Your task to perform on an android device: turn pop-ups off in chrome Image 0: 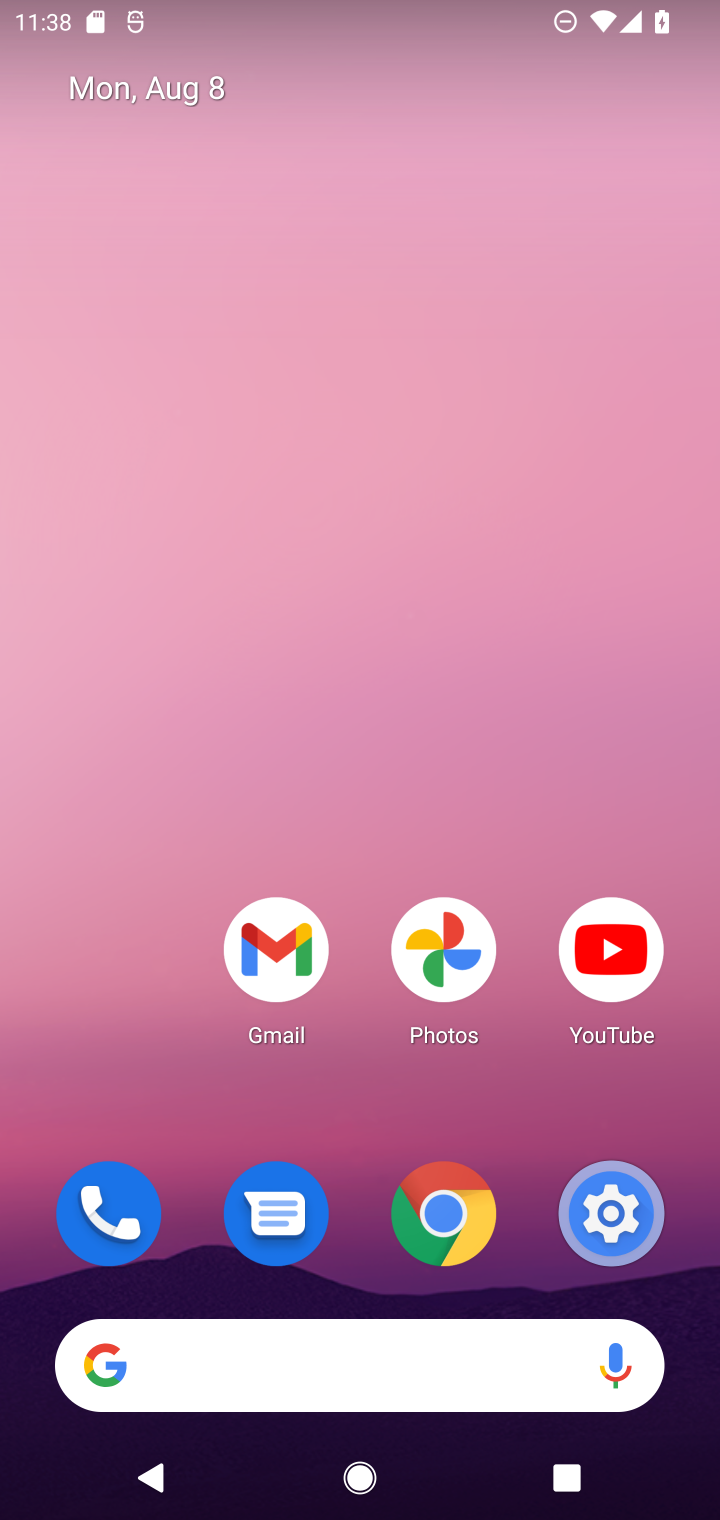
Step 0: click (441, 1191)
Your task to perform on an android device: turn pop-ups off in chrome Image 1: 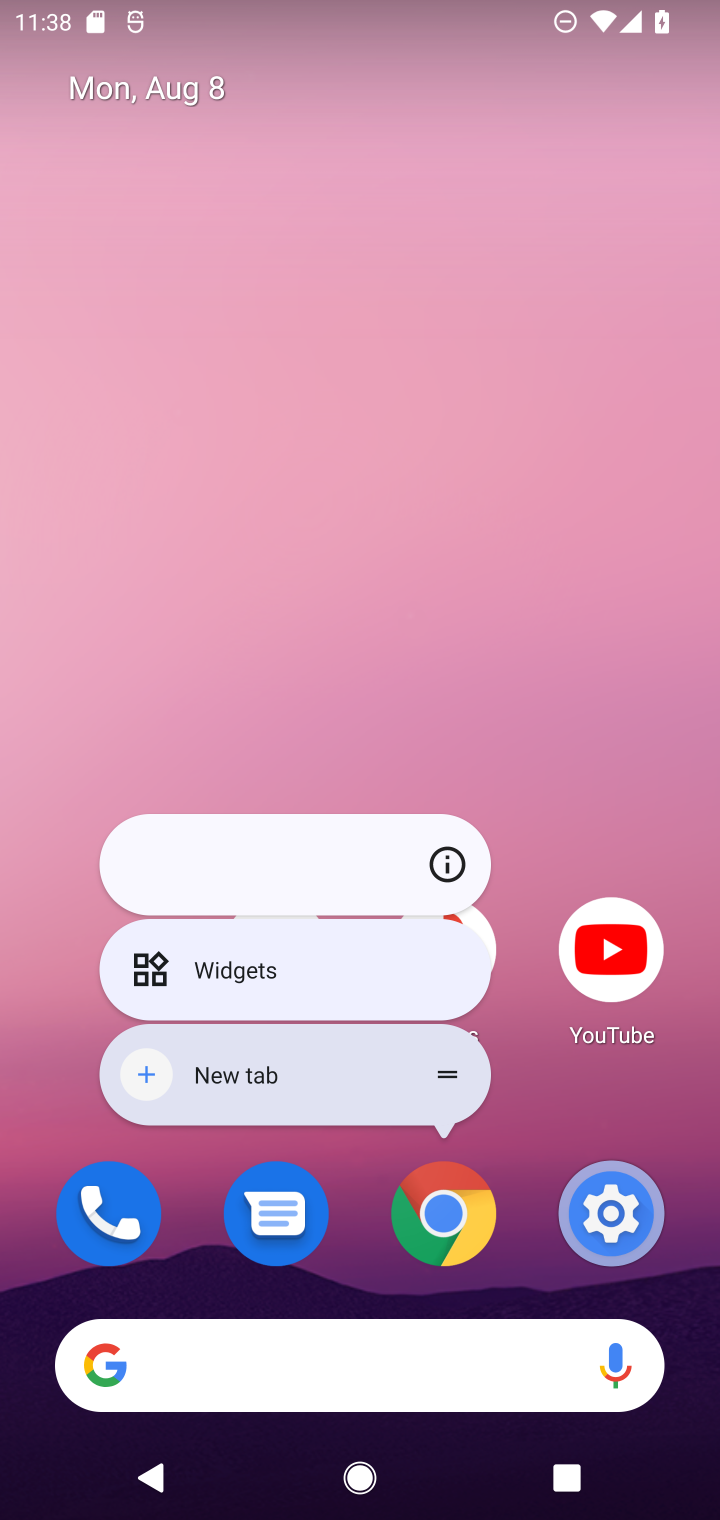
Step 1: click (522, 524)
Your task to perform on an android device: turn pop-ups off in chrome Image 2: 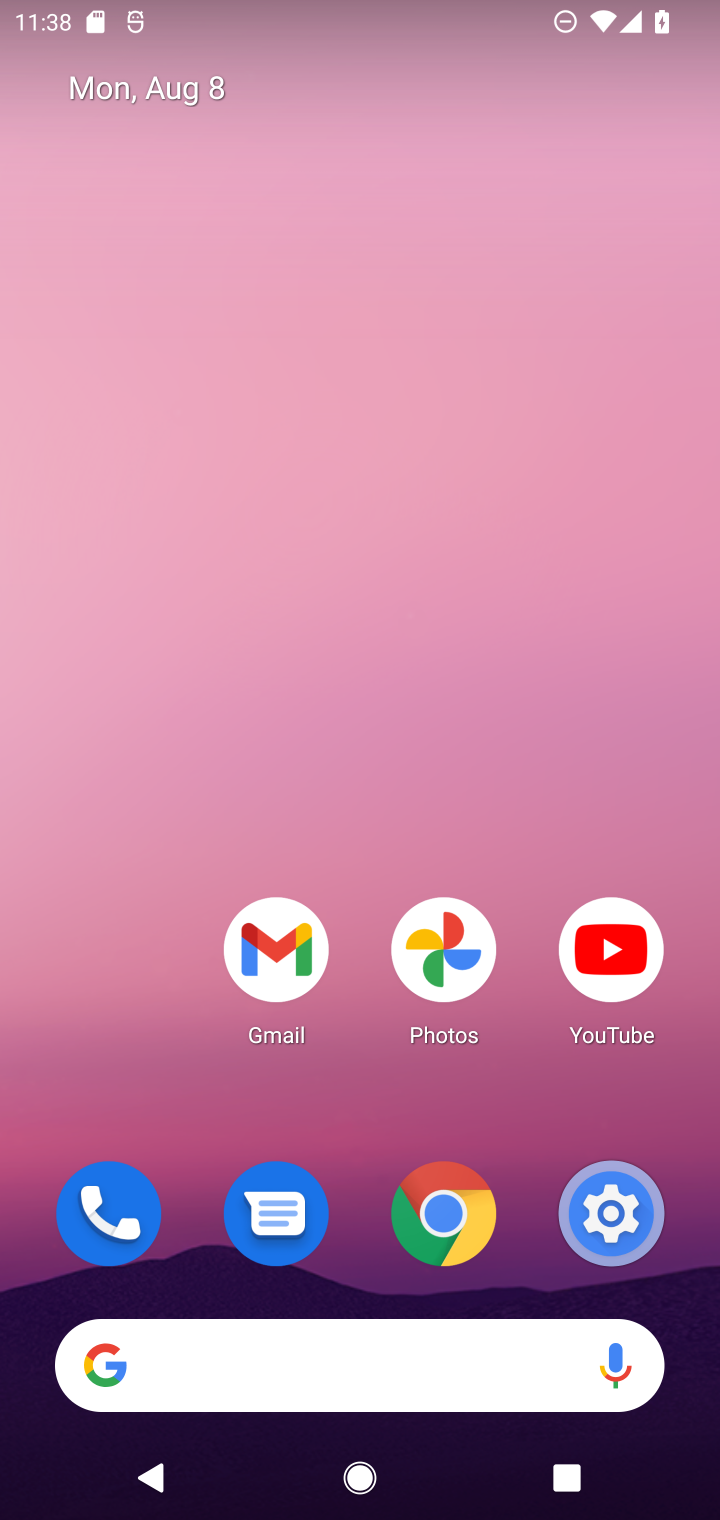
Step 2: click (438, 1207)
Your task to perform on an android device: turn pop-ups off in chrome Image 3: 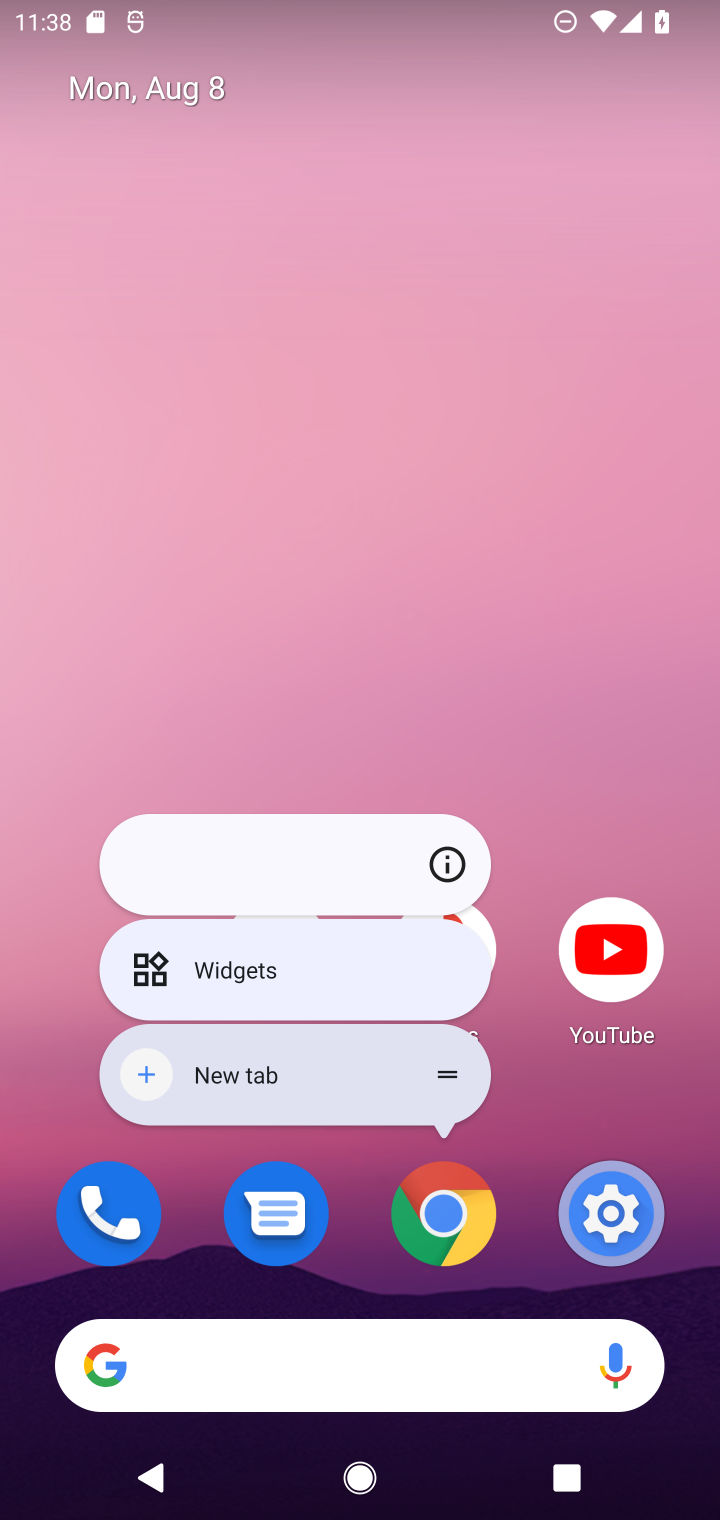
Step 3: click (539, 663)
Your task to perform on an android device: turn pop-ups off in chrome Image 4: 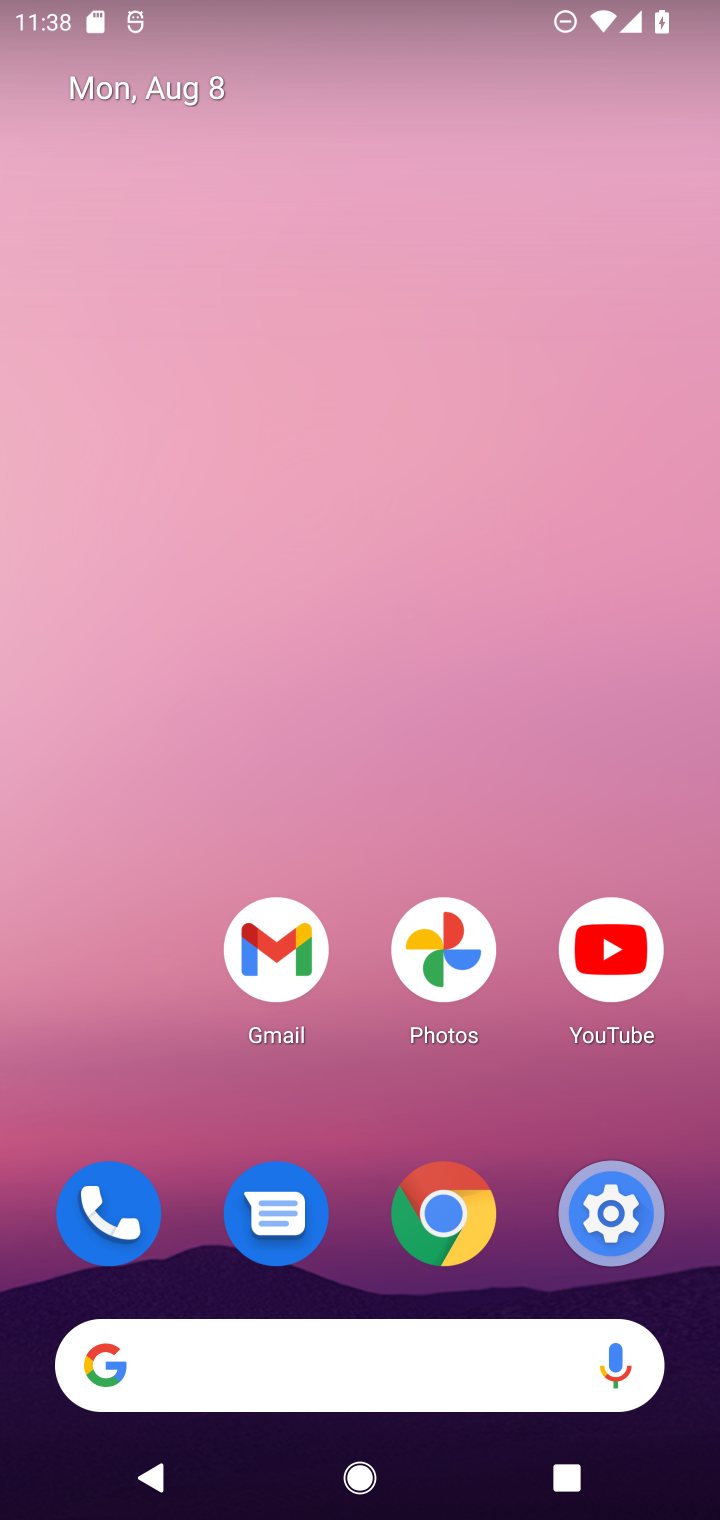
Step 4: drag from (548, 1101) to (530, 11)
Your task to perform on an android device: turn pop-ups off in chrome Image 5: 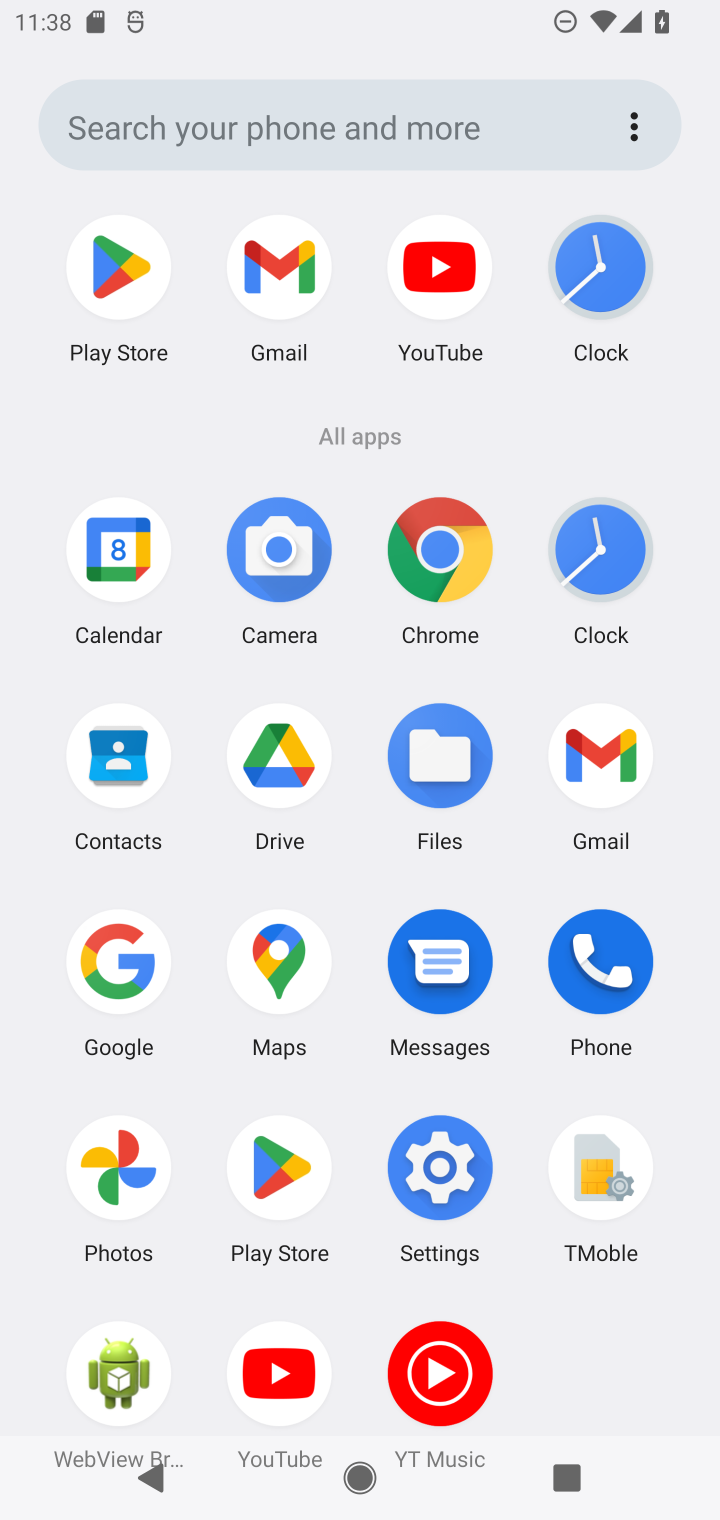
Step 5: click (435, 525)
Your task to perform on an android device: turn pop-ups off in chrome Image 6: 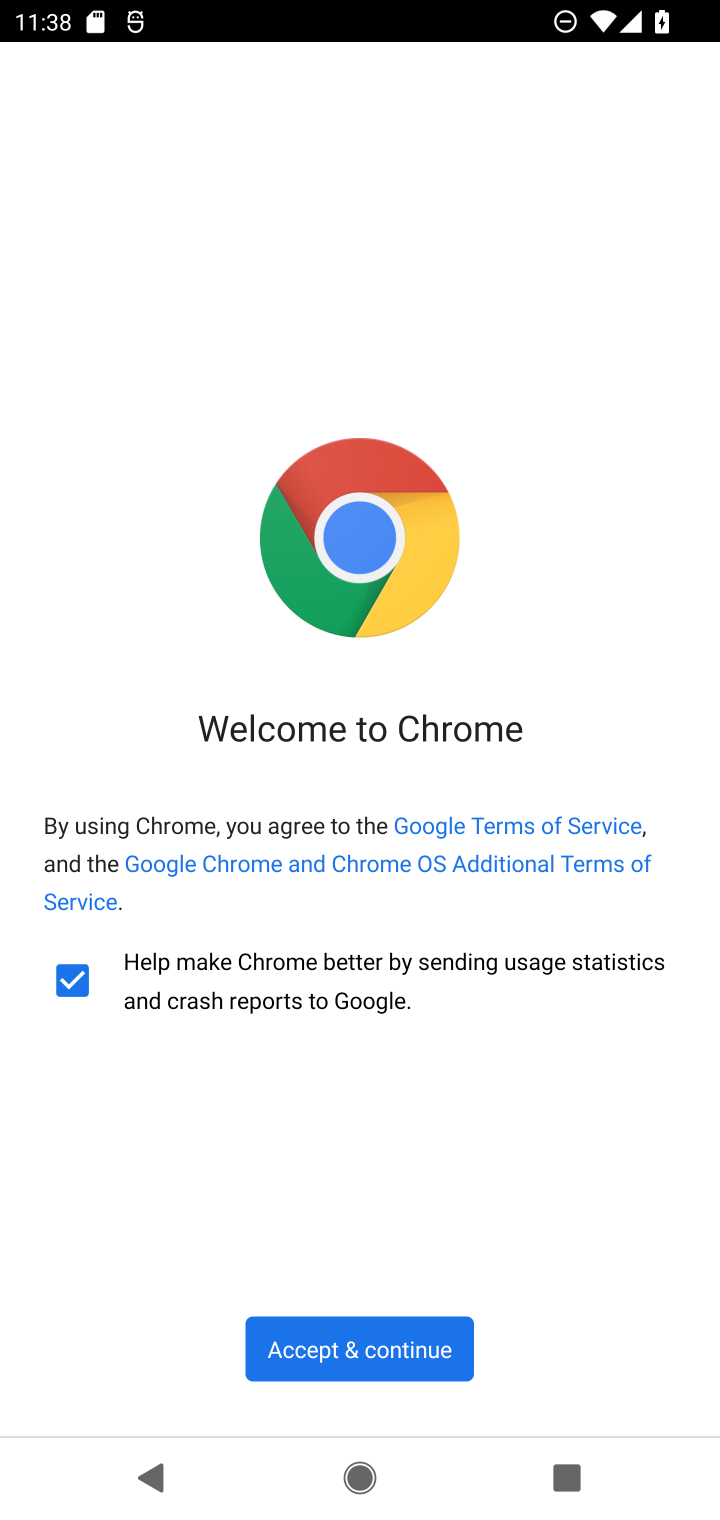
Step 6: click (352, 1346)
Your task to perform on an android device: turn pop-ups off in chrome Image 7: 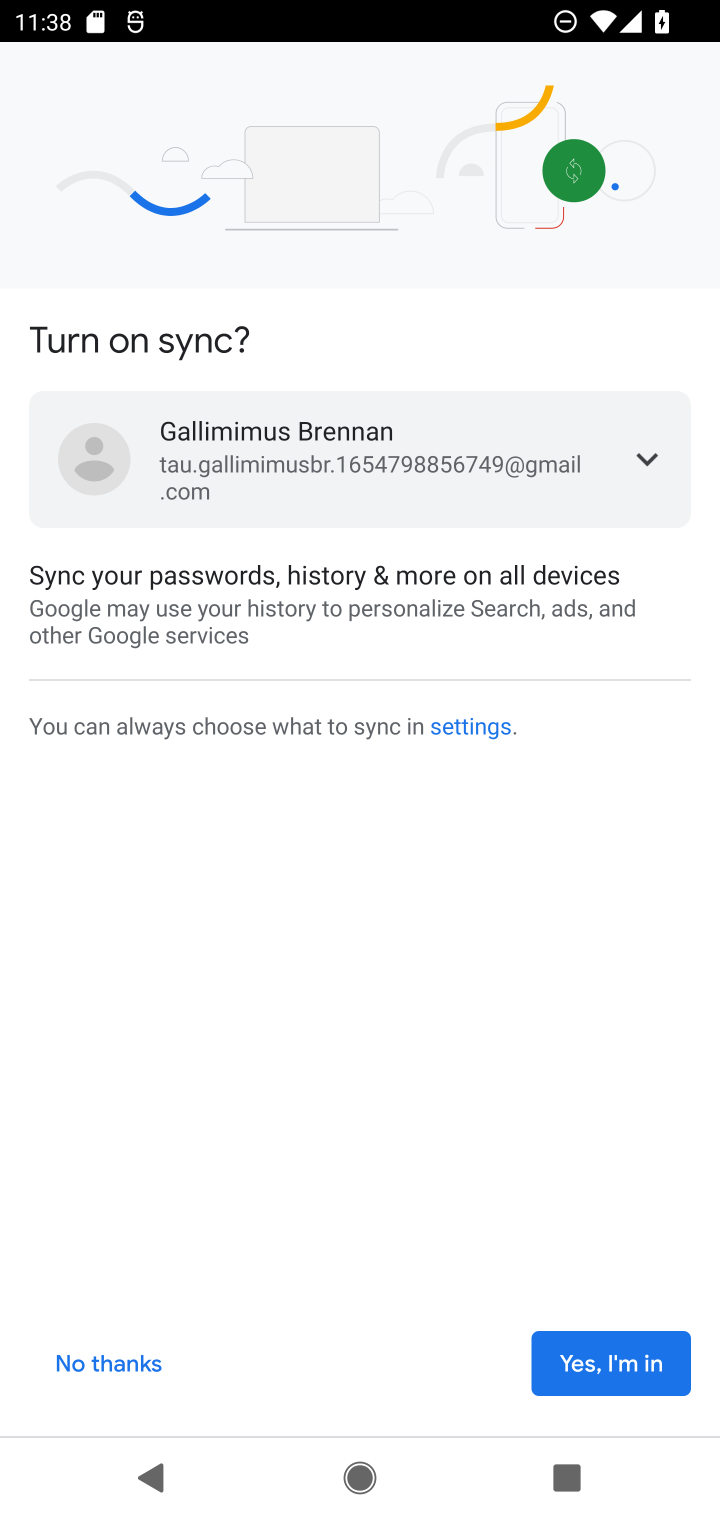
Step 7: click (613, 1363)
Your task to perform on an android device: turn pop-ups off in chrome Image 8: 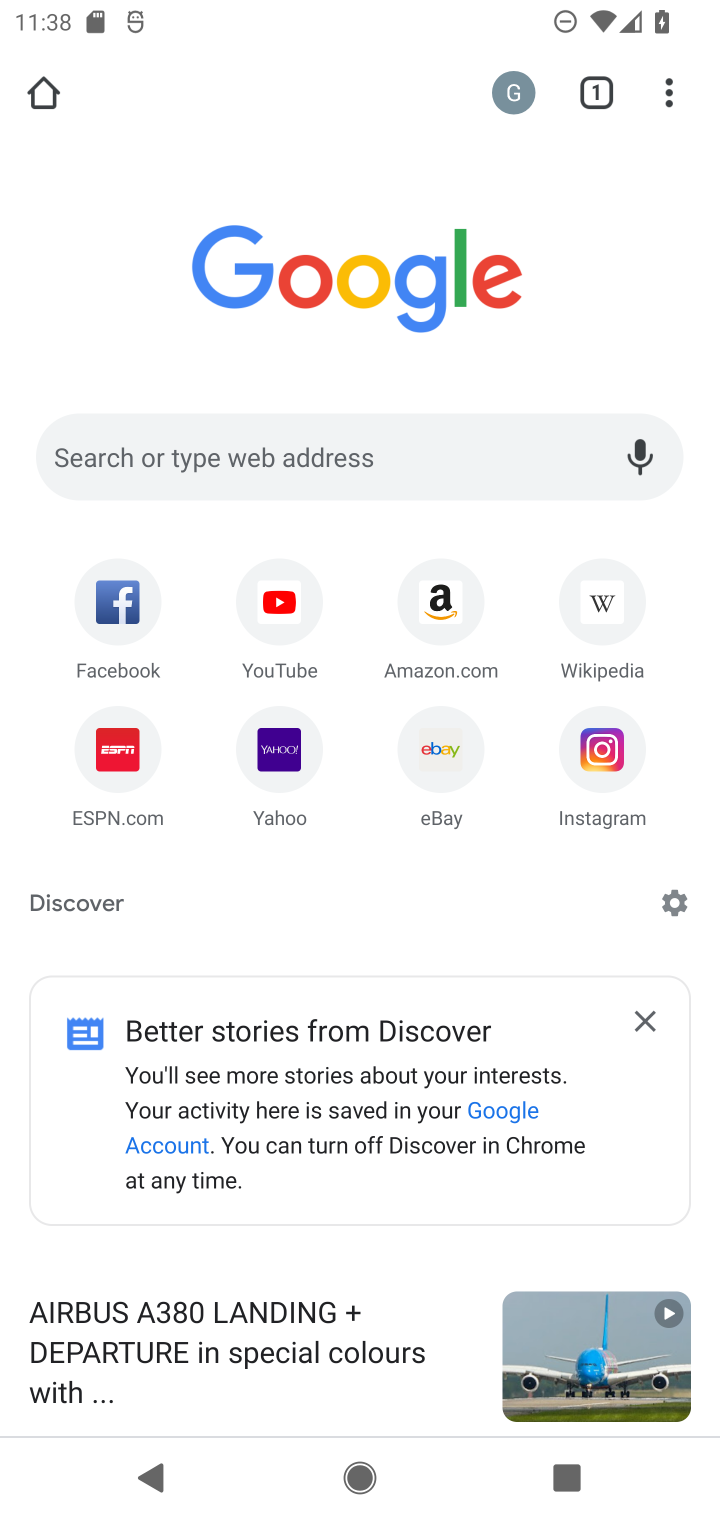
Step 8: click (671, 84)
Your task to perform on an android device: turn pop-ups off in chrome Image 9: 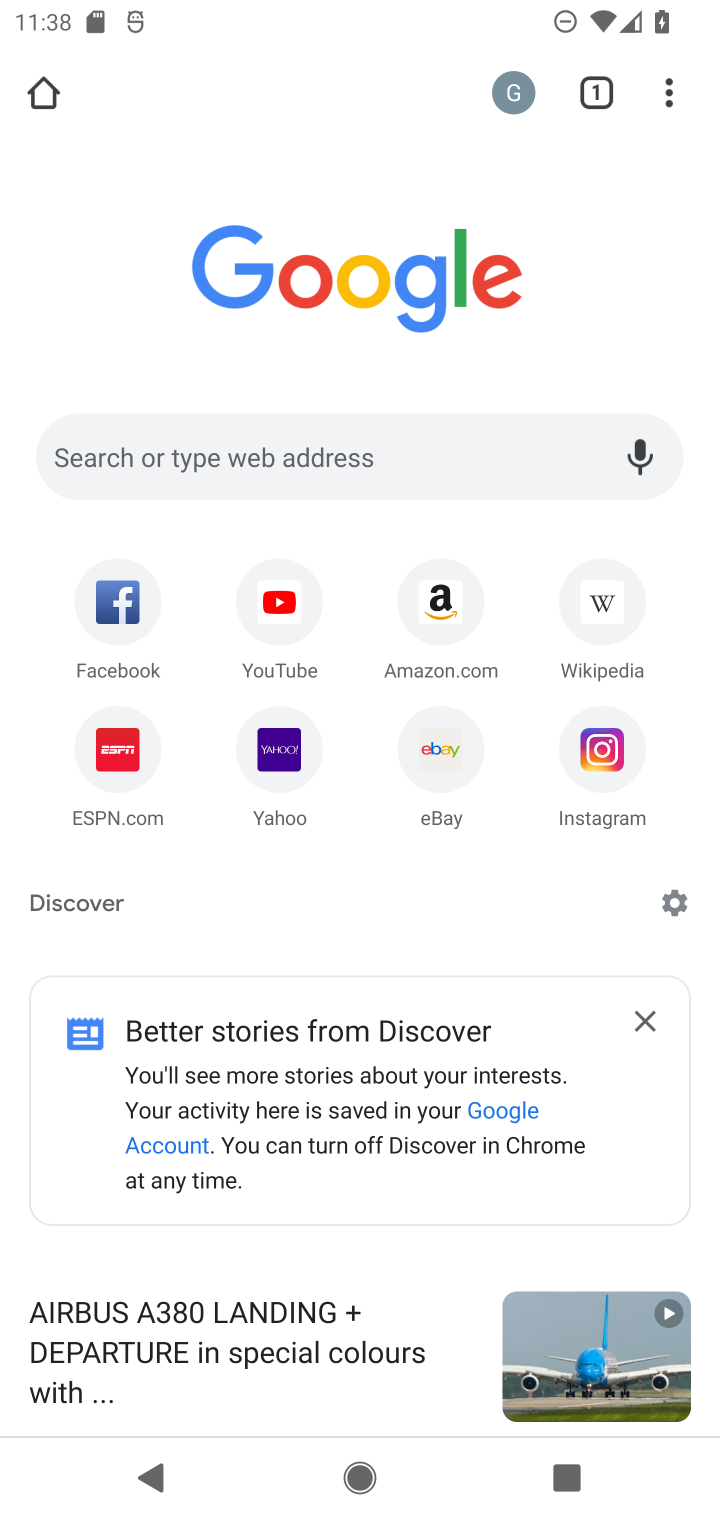
Step 9: click (665, 89)
Your task to perform on an android device: turn pop-ups off in chrome Image 10: 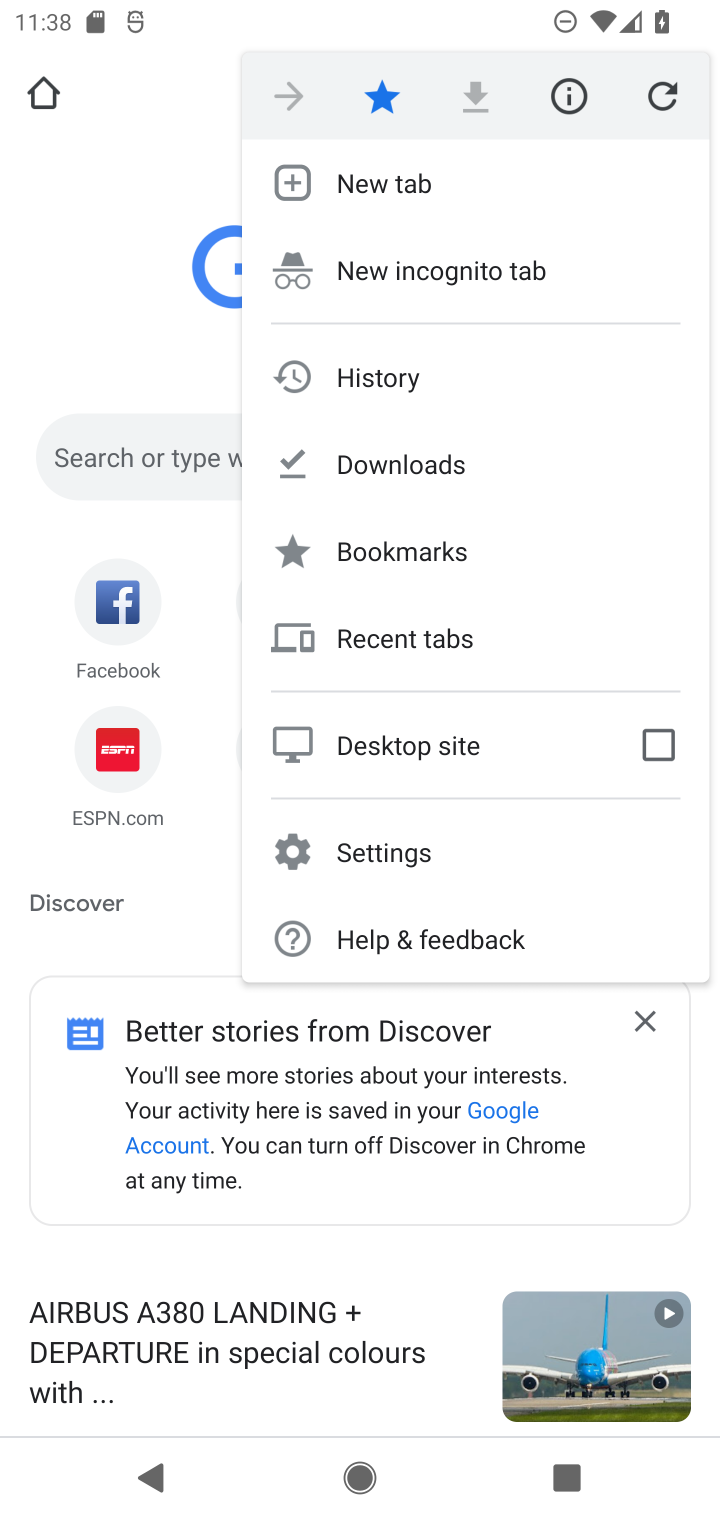
Step 10: click (426, 840)
Your task to perform on an android device: turn pop-ups off in chrome Image 11: 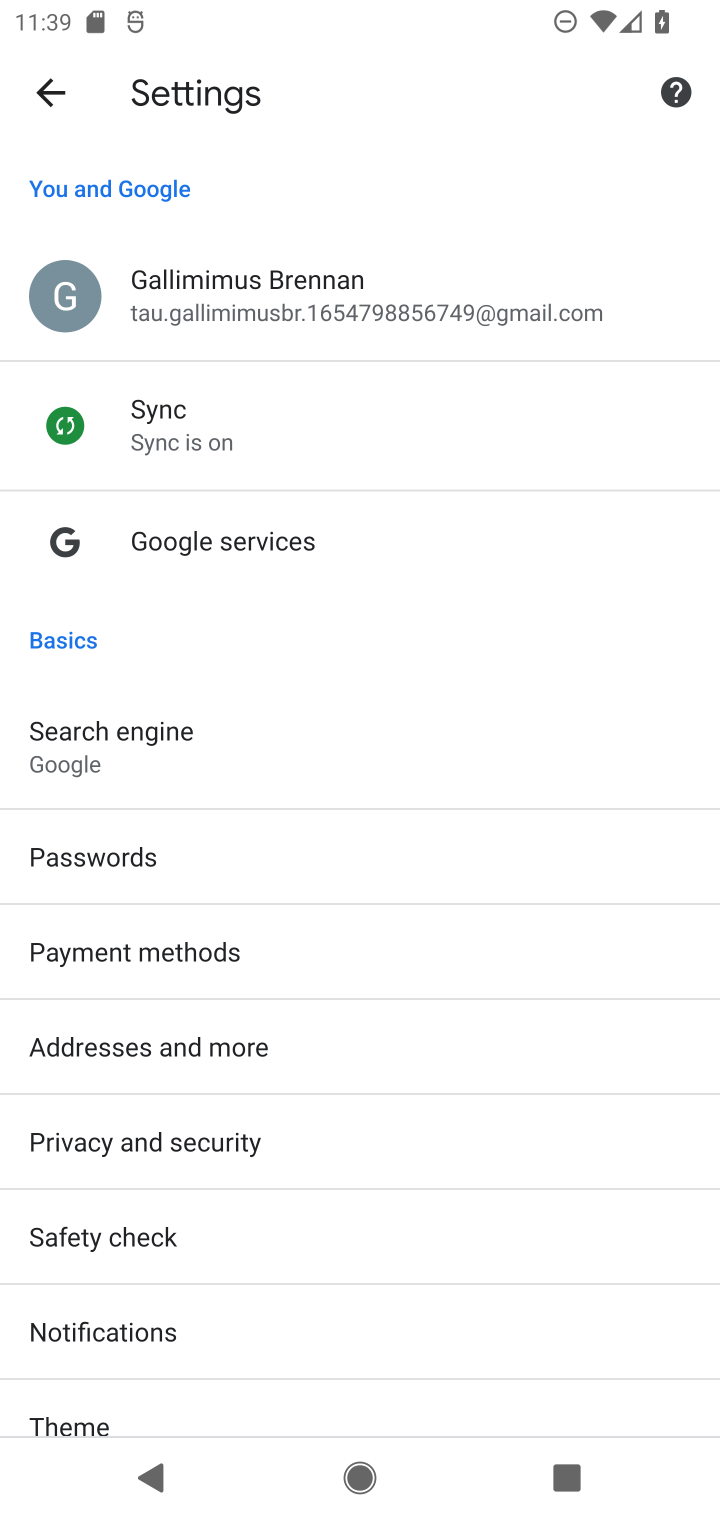
Step 11: drag from (250, 1366) to (258, 229)
Your task to perform on an android device: turn pop-ups off in chrome Image 12: 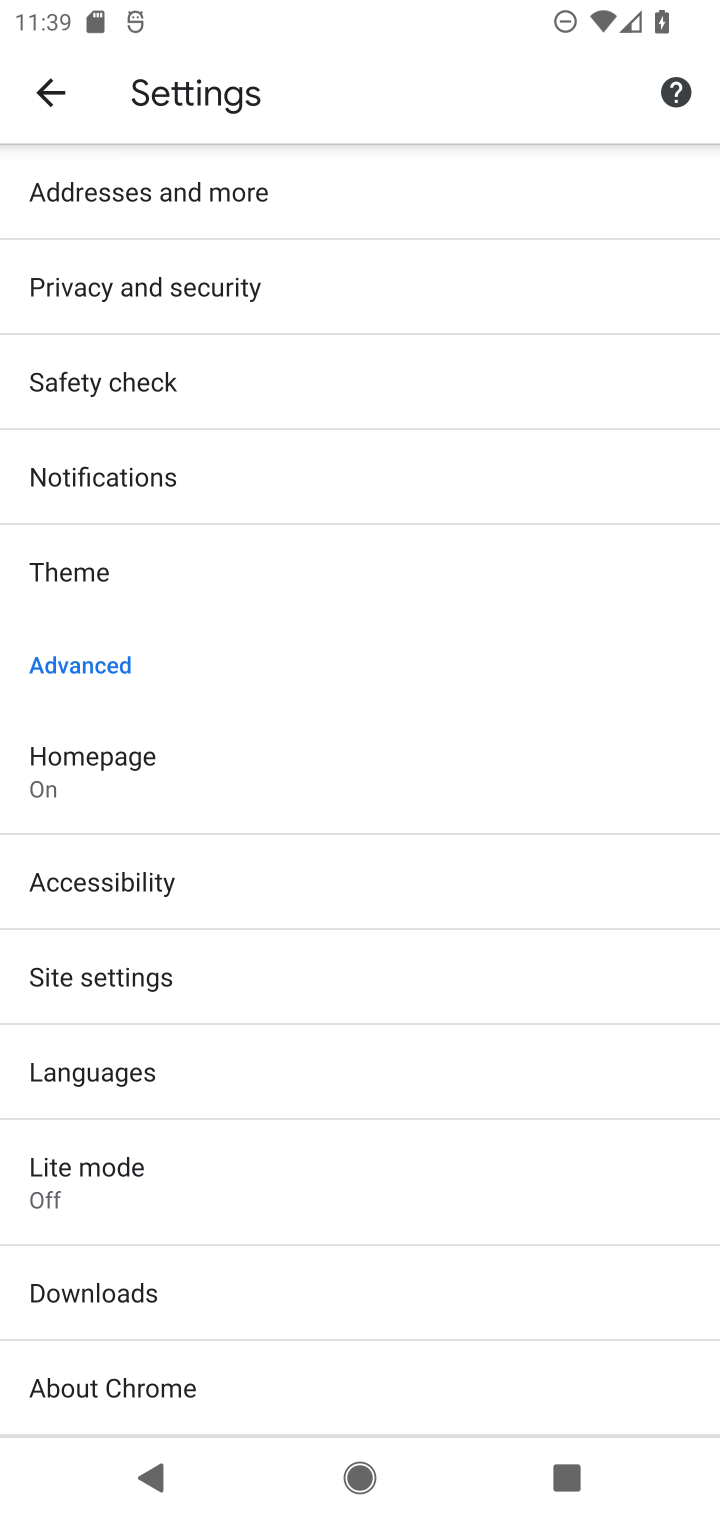
Step 12: click (212, 974)
Your task to perform on an android device: turn pop-ups off in chrome Image 13: 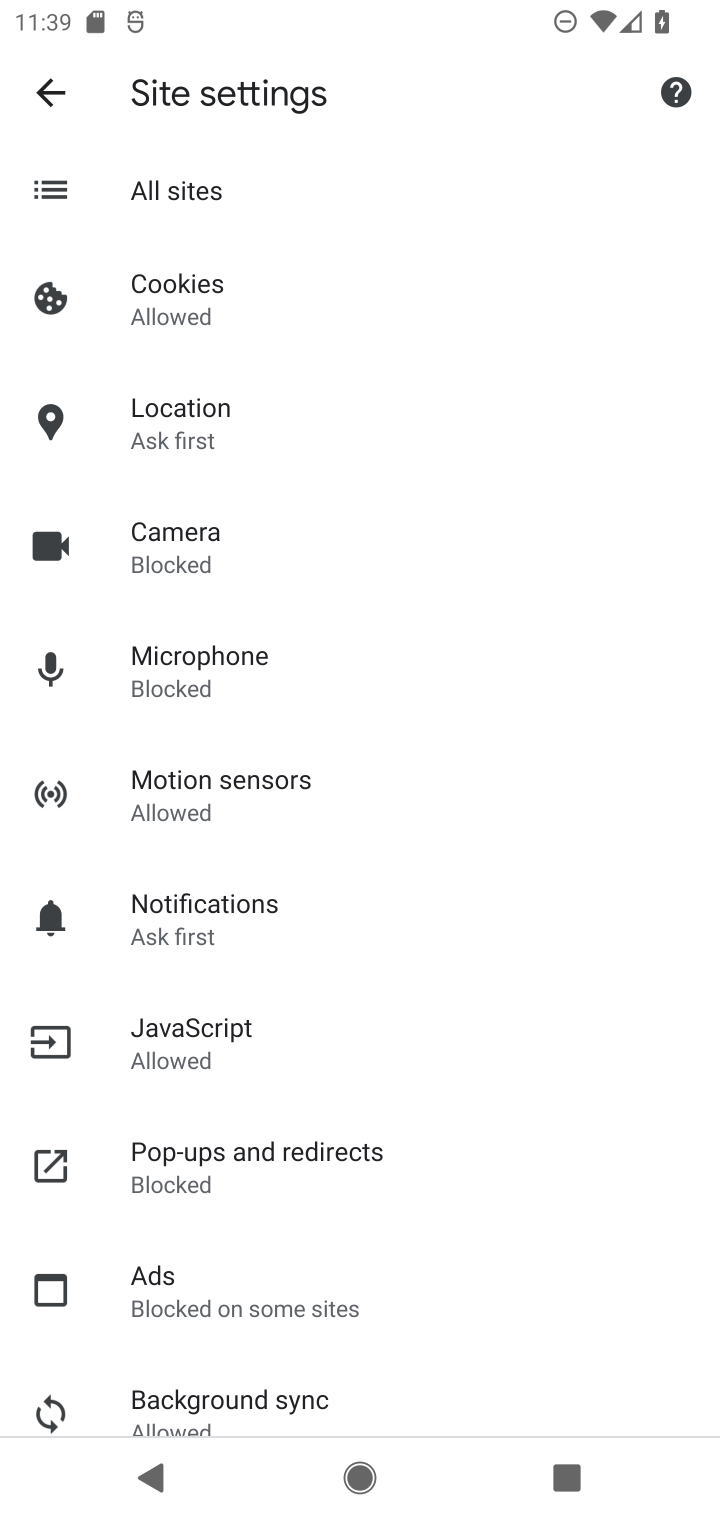
Step 13: click (305, 1167)
Your task to perform on an android device: turn pop-ups off in chrome Image 14: 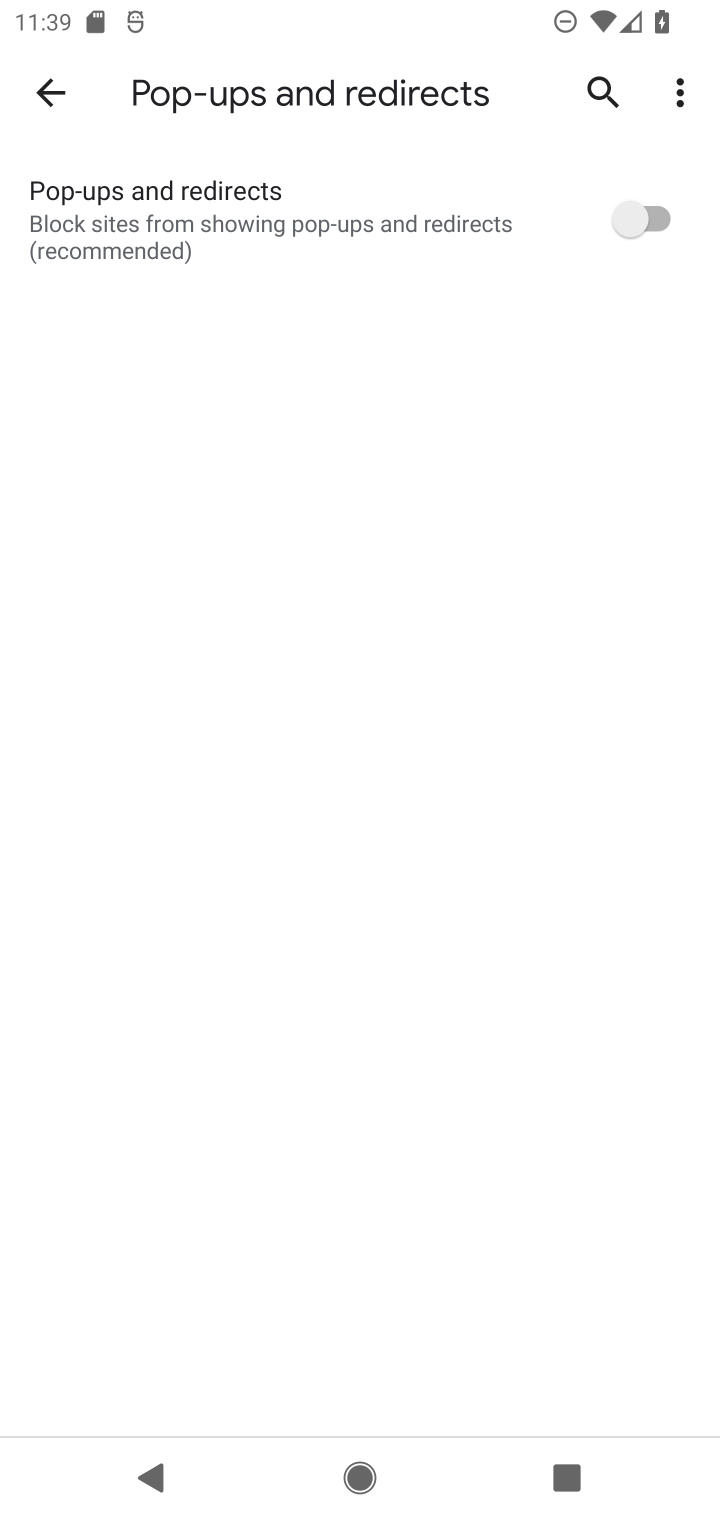
Step 14: click (309, 1159)
Your task to perform on an android device: turn pop-ups off in chrome Image 15: 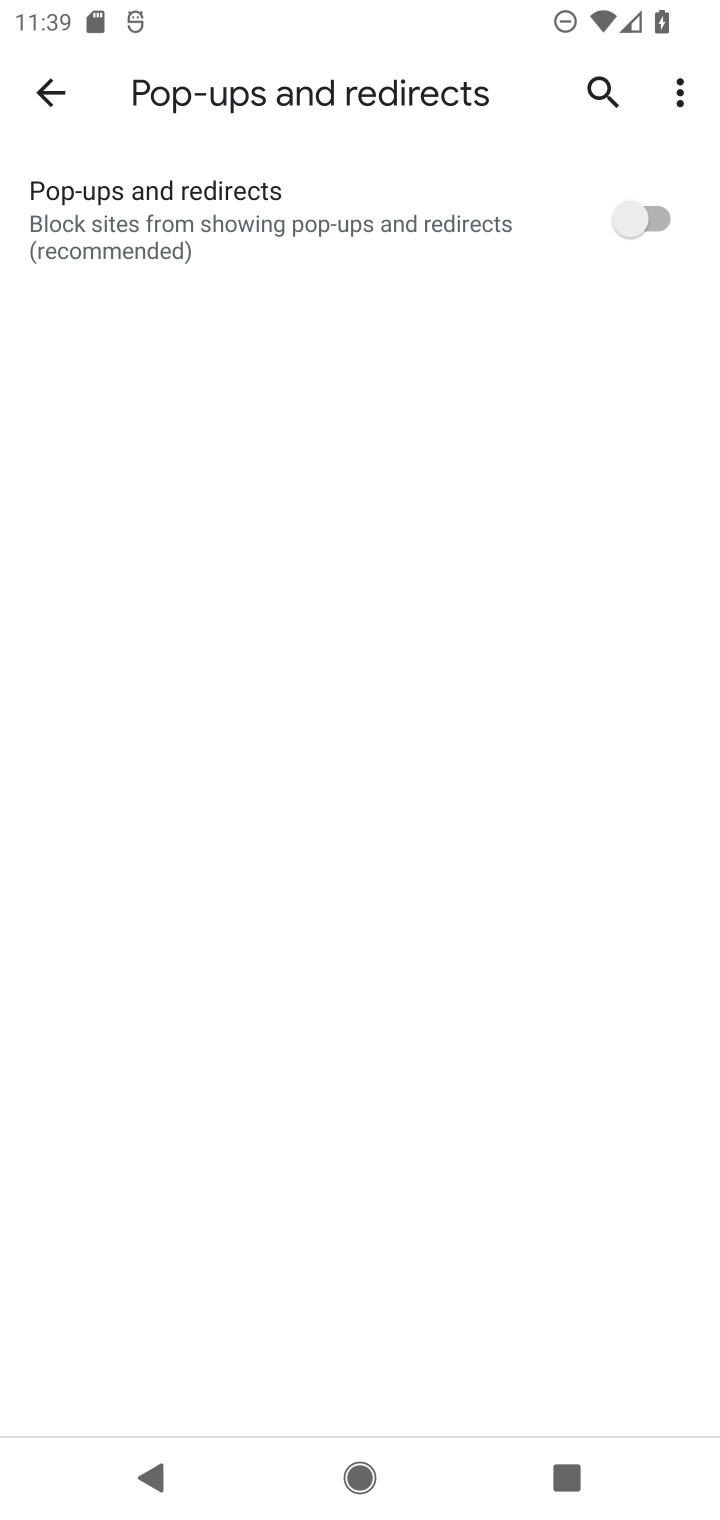
Step 15: task complete